Your task to perform on an android device: What's the weather? Image 0: 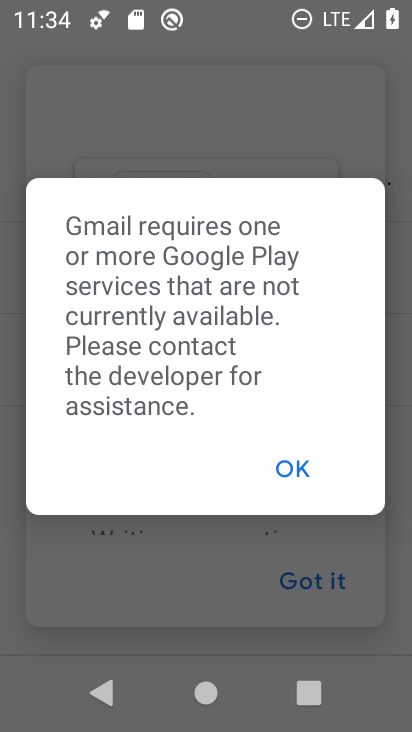
Step 0: click (288, 468)
Your task to perform on an android device: What's the weather? Image 1: 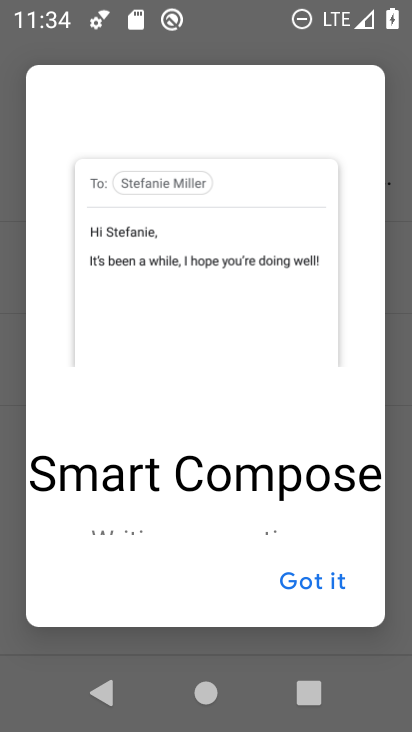
Step 1: press back button
Your task to perform on an android device: What's the weather? Image 2: 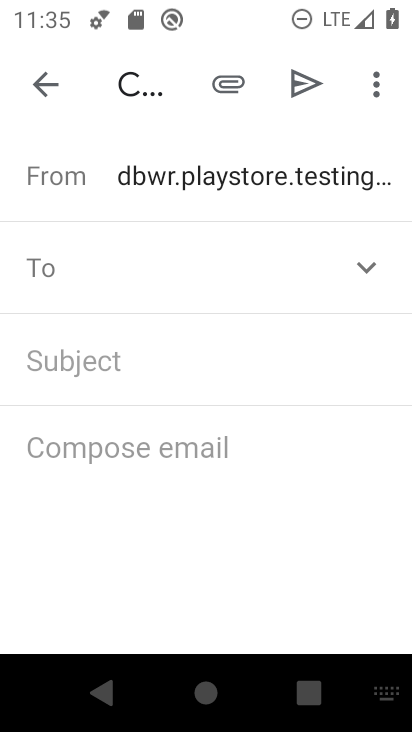
Step 2: press home button
Your task to perform on an android device: What's the weather? Image 3: 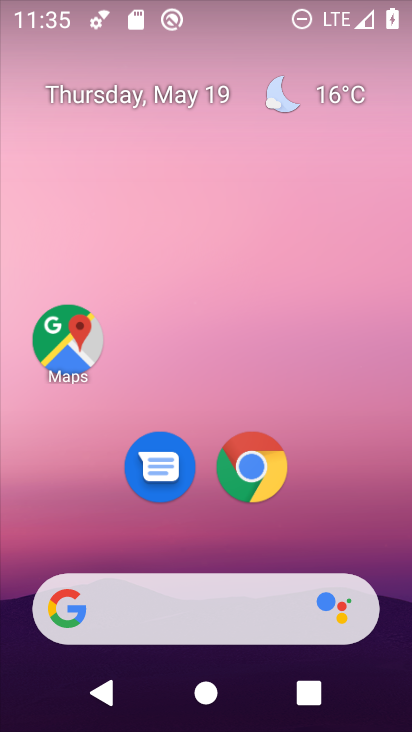
Step 3: click (245, 479)
Your task to perform on an android device: What's the weather? Image 4: 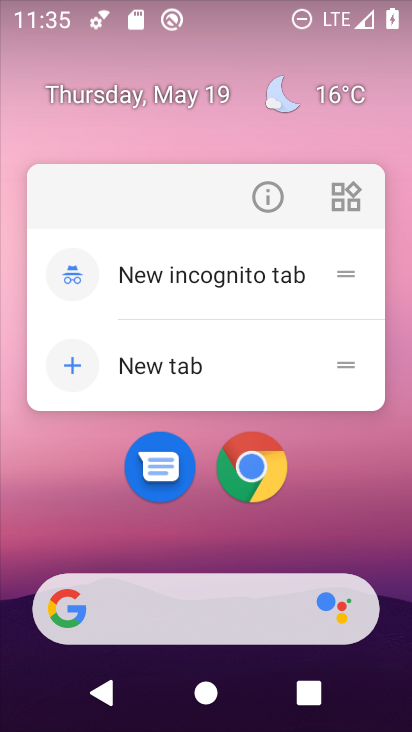
Step 4: click (250, 446)
Your task to perform on an android device: What's the weather? Image 5: 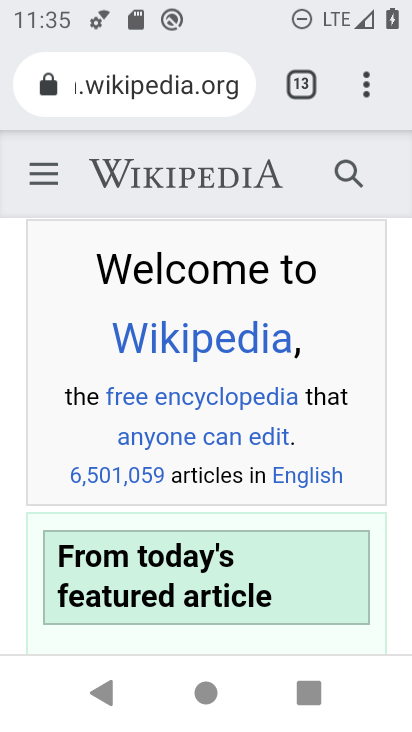
Step 5: click (365, 90)
Your task to perform on an android device: What's the weather? Image 6: 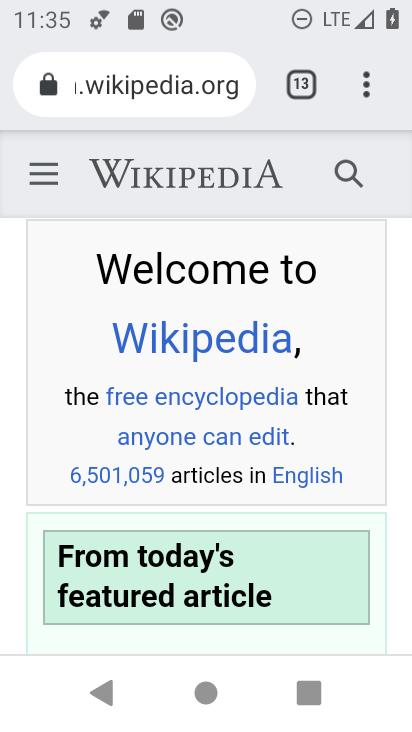
Step 6: click (362, 75)
Your task to perform on an android device: What's the weather? Image 7: 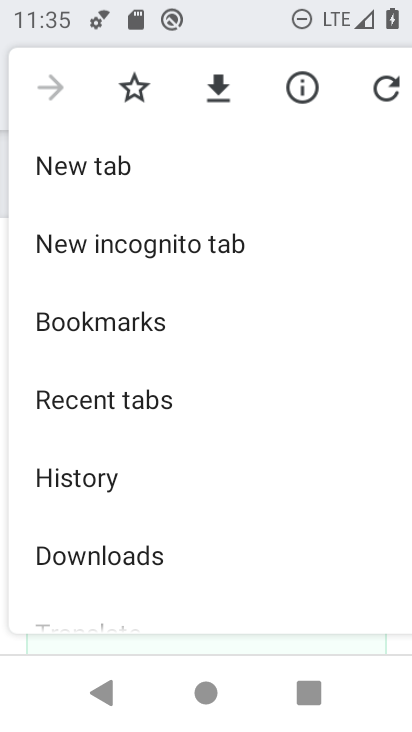
Step 7: click (84, 153)
Your task to perform on an android device: What's the weather? Image 8: 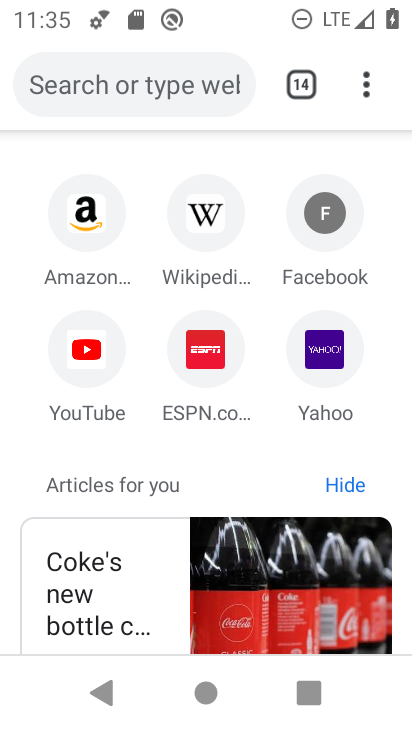
Step 8: click (128, 70)
Your task to perform on an android device: What's the weather? Image 9: 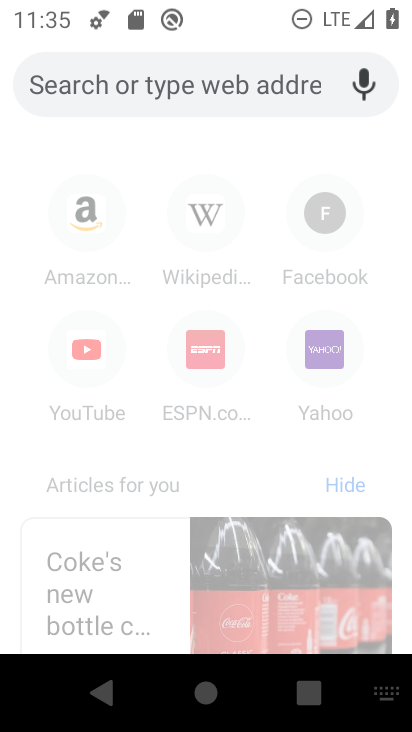
Step 9: type "What's the weather?"
Your task to perform on an android device: What's the weather? Image 10: 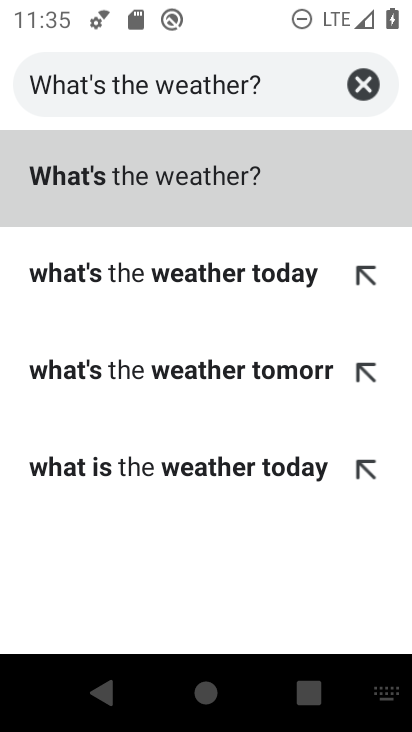
Step 10: click (235, 172)
Your task to perform on an android device: What's the weather? Image 11: 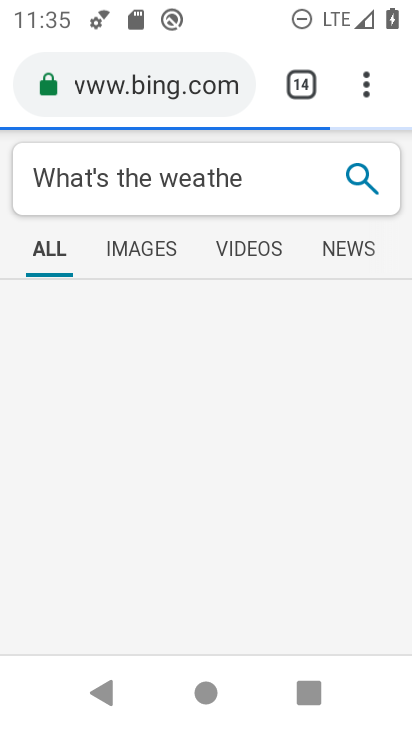
Step 11: task complete